Your task to perform on an android device: turn on the 12-hour format for clock Image 0: 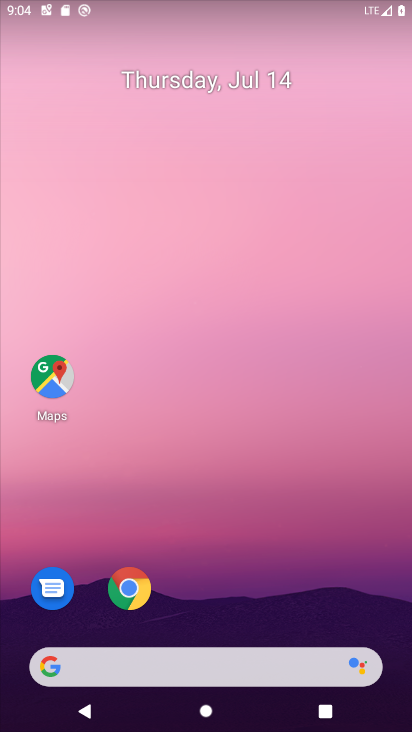
Step 0: drag from (270, 581) to (307, 84)
Your task to perform on an android device: turn on the 12-hour format for clock Image 1: 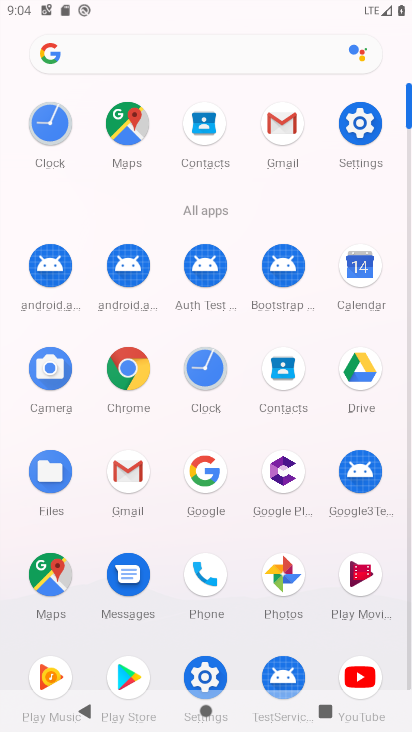
Step 1: click (204, 377)
Your task to perform on an android device: turn on the 12-hour format for clock Image 2: 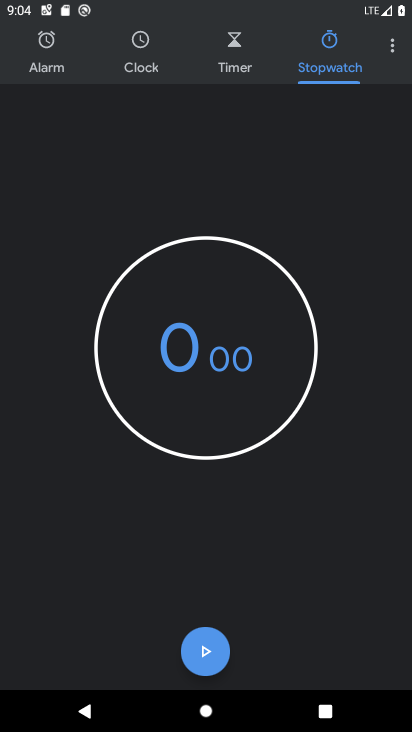
Step 2: click (391, 48)
Your task to perform on an android device: turn on the 12-hour format for clock Image 3: 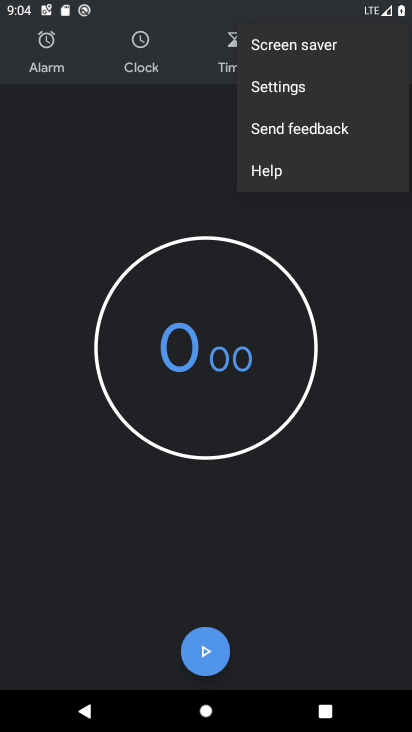
Step 3: click (292, 90)
Your task to perform on an android device: turn on the 12-hour format for clock Image 4: 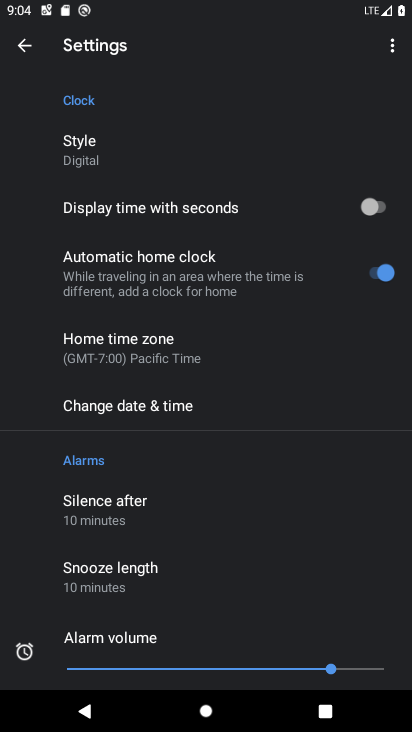
Step 4: click (173, 410)
Your task to perform on an android device: turn on the 12-hour format for clock Image 5: 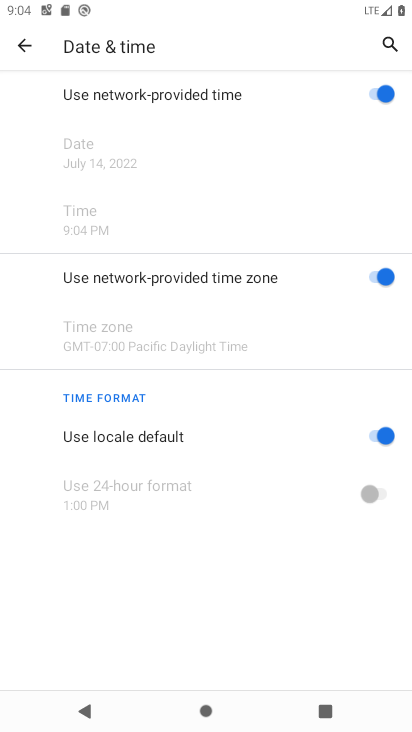
Step 5: task complete